Your task to perform on an android device: Open wifi settings Image 0: 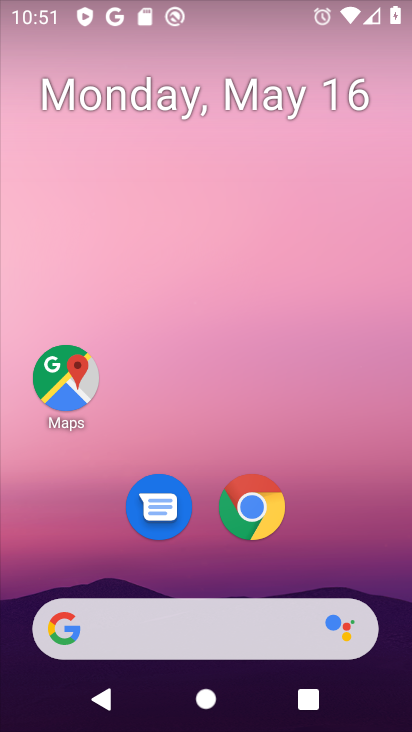
Step 0: drag from (211, 565) to (250, 32)
Your task to perform on an android device: Open wifi settings Image 1: 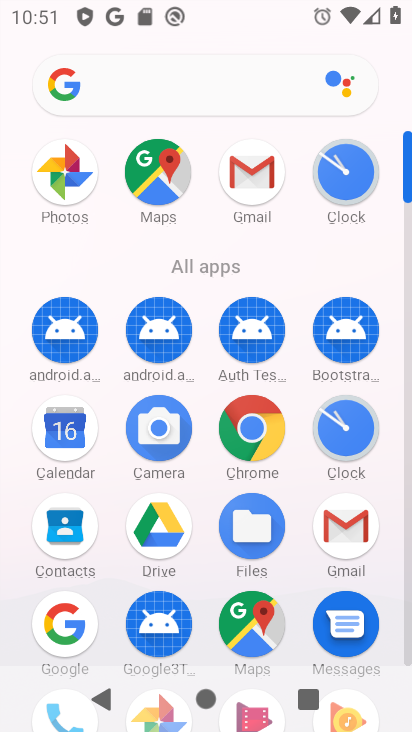
Step 1: drag from (119, 576) to (119, 231)
Your task to perform on an android device: Open wifi settings Image 2: 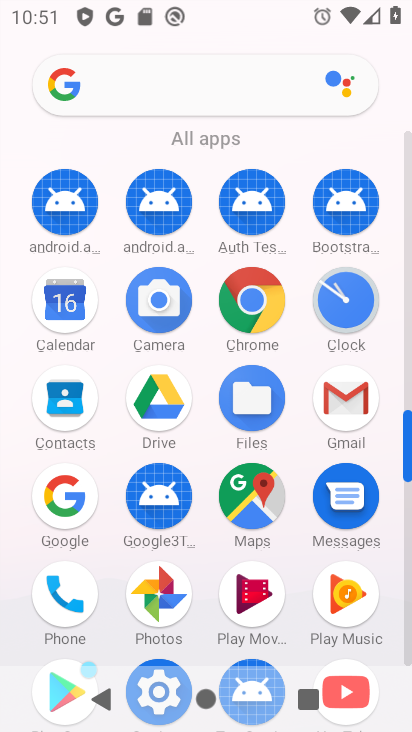
Step 2: drag from (202, 641) to (252, 234)
Your task to perform on an android device: Open wifi settings Image 3: 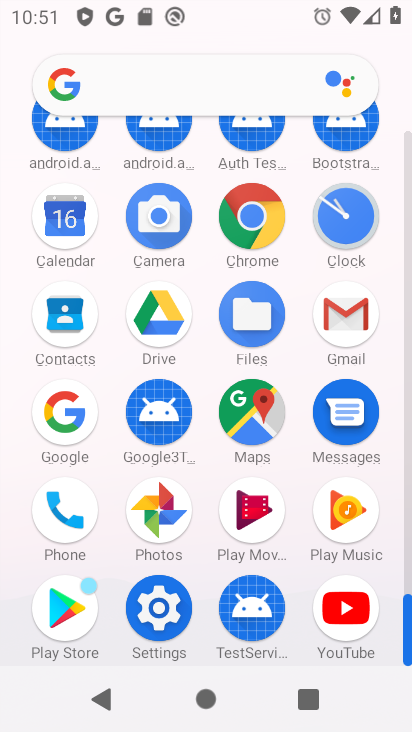
Step 3: click (166, 600)
Your task to perform on an android device: Open wifi settings Image 4: 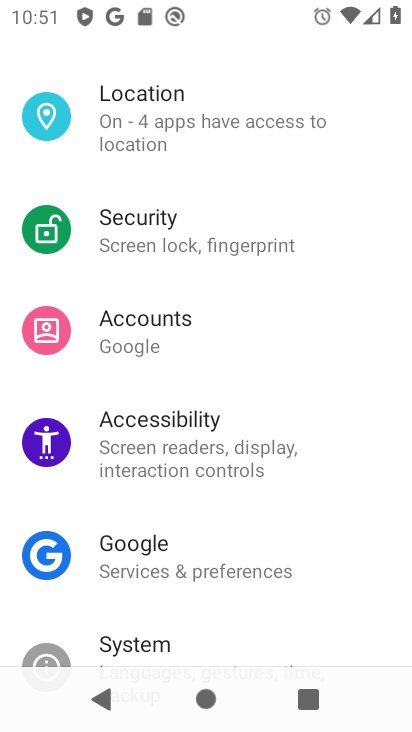
Step 4: drag from (345, 218) to (319, 729)
Your task to perform on an android device: Open wifi settings Image 5: 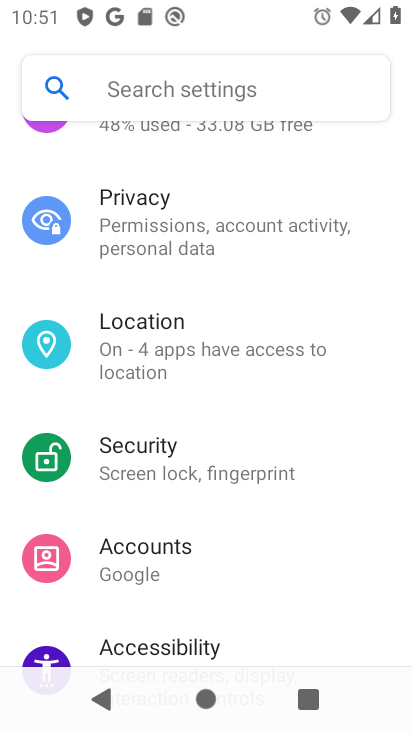
Step 5: drag from (296, 188) to (291, 446)
Your task to perform on an android device: Open wifi settings Image 6: 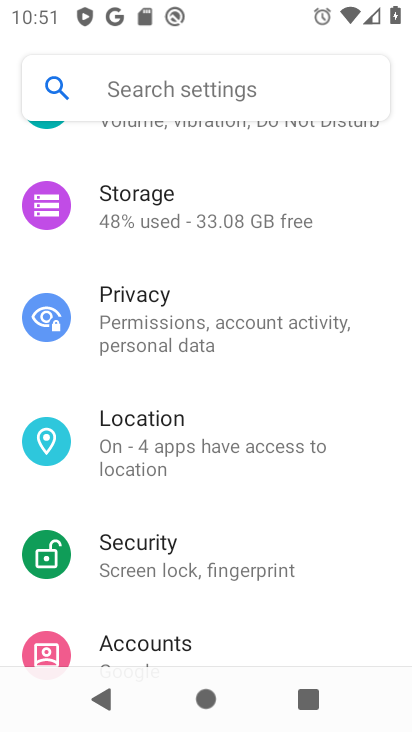
Step 6: drag from (308, 269) to (302, 606)
Your task to perform on an android device: Open wifi settings Image 7: 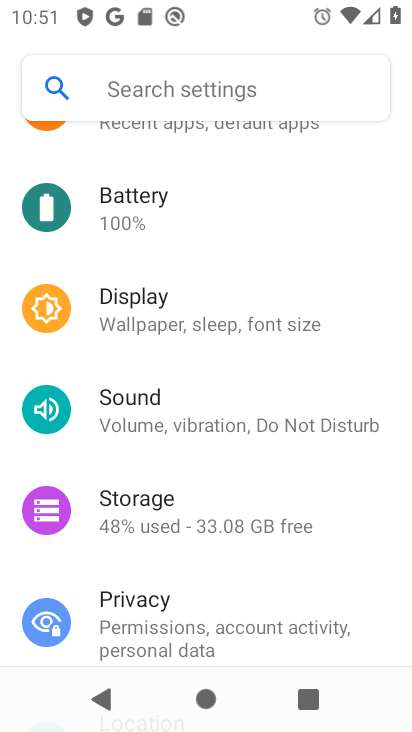
Step 7: drag from (272, 252) to (276, 483)
Your task to perform on an android device: Open wifi settings Image 8: 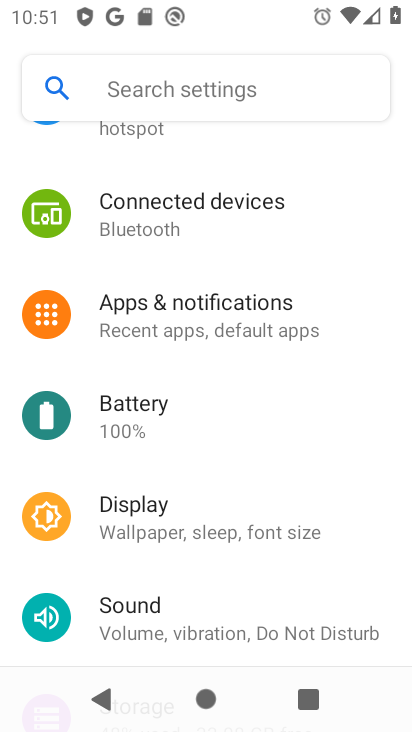
Step 8: drag from (227, 160) to (265, 513)
Your task to perform on an android device: Open wifi settings Image 9: 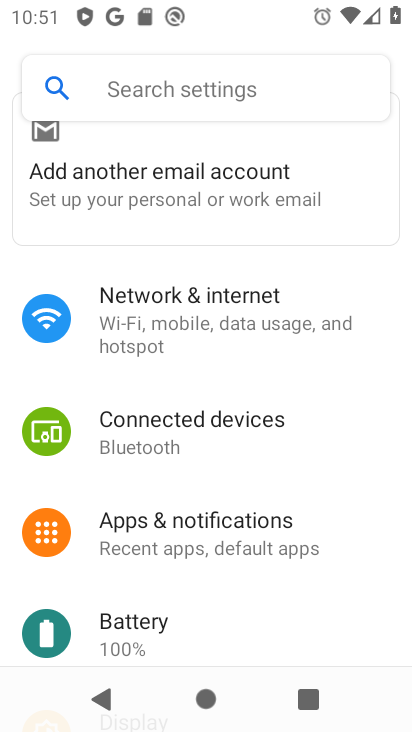
Step 9: click (194, 334)
Your task to perform on an android device: Open wifi settings Image 10: 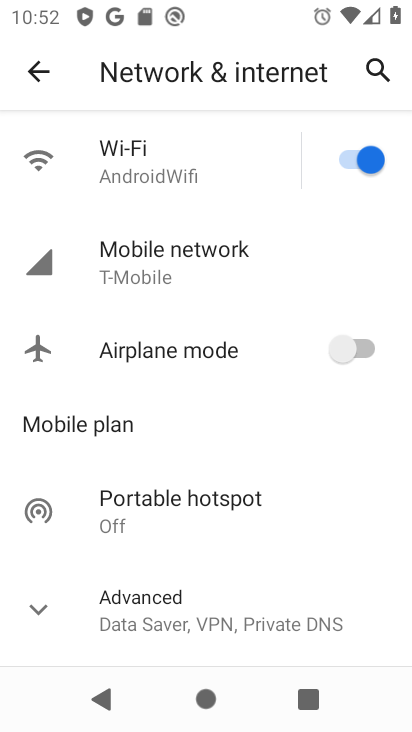
Step 10: click (168, 160)
Your task to perform on an android device: Open wifi settings Image 11: 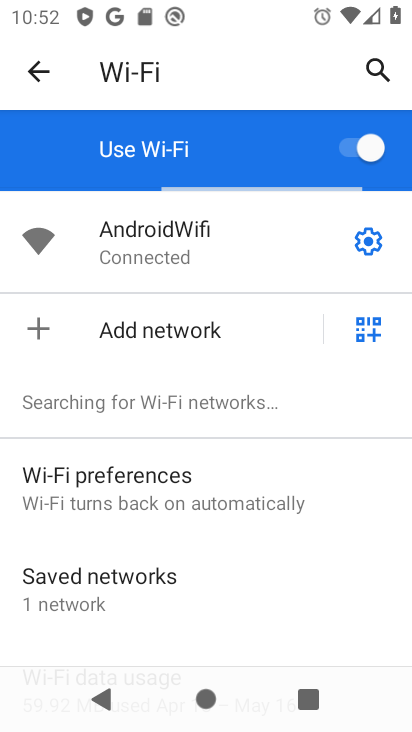
Step 11: task complete